Your task to perform on an android device: Go to privacy settings Image 0: 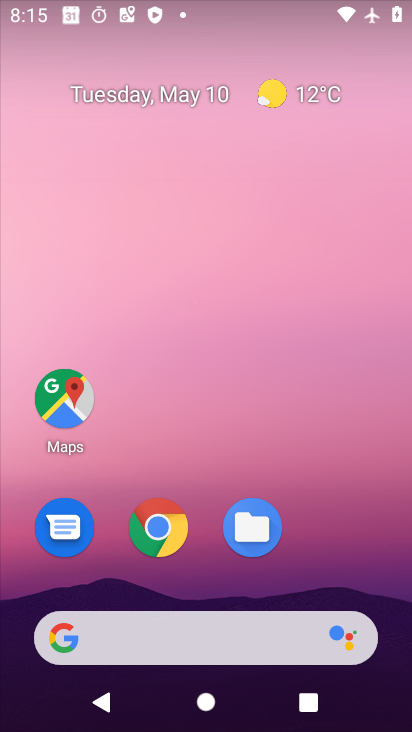
Step 0: drag from (285, 471) to (264, 116)
Your task to perform on an android device: Go to privacy settings Image 1: 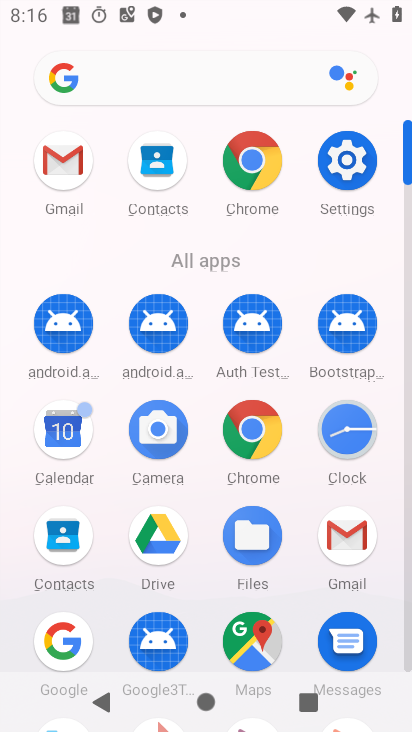
Step 1: click (339, 162)
Your task to perform on an android device: Go to privacy settings Image 2: 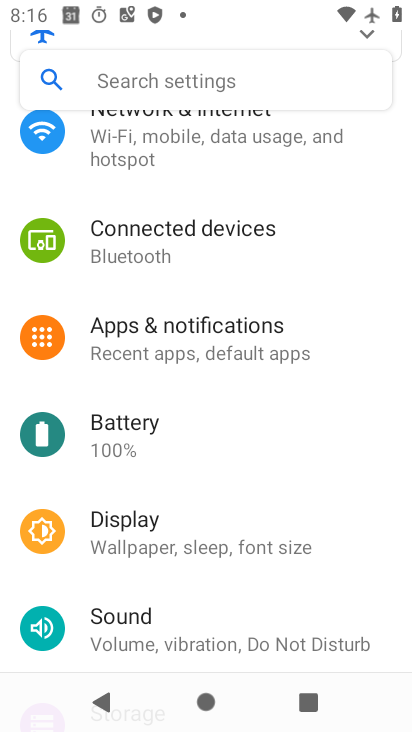
Step 2: drag from (227, 625) to (242, 173)
Your task to perform on an android device: Go to privacy settings Image 3: 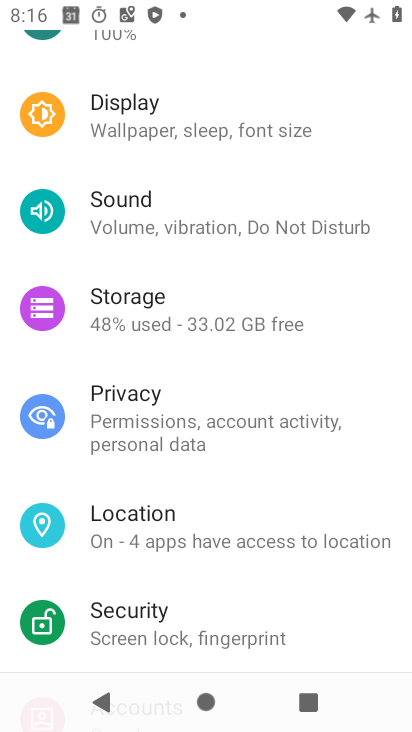
Step 3: click (186, 426)
Your task to perform on an android device: Go to privacy settings Image 4: 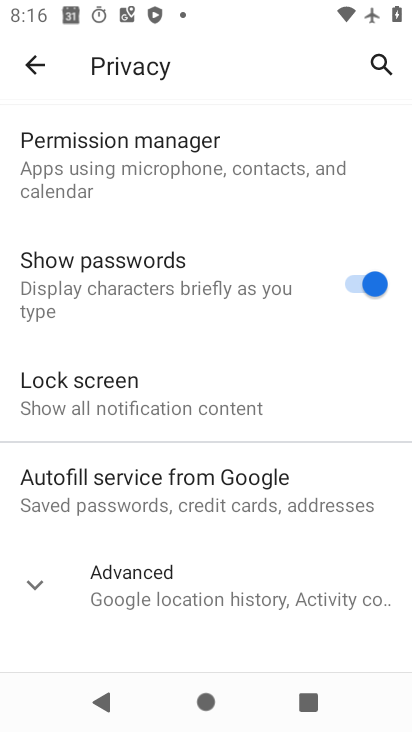
Step 4: task complete